Your task to perform on an android device: Open Google Chrome and click the shortcut for Amazon.com Image 0: 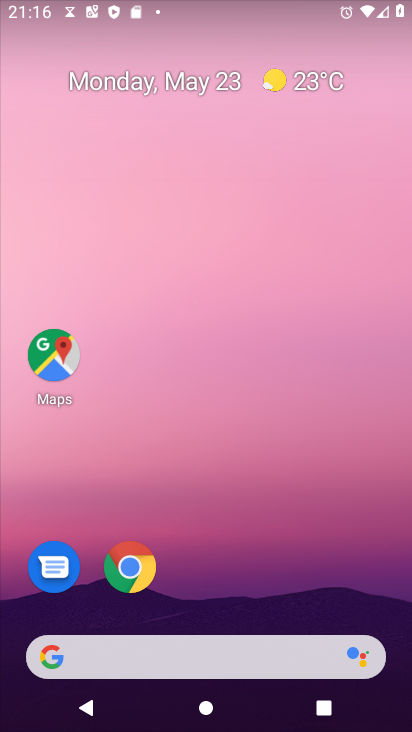
Step 0: drag from (313, 584) to (301, 273)
Your task to perform on an android device: Open Google Chrome and click the shortcut for Amazon.com Image 1: 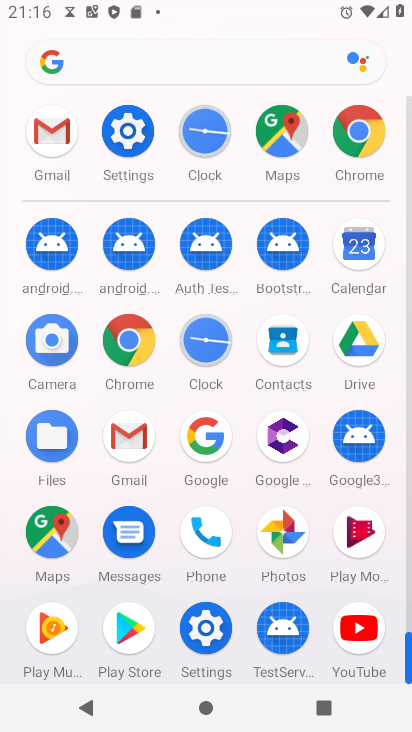
Step 1: click (136, 326)
Your task to perform on an android device: Open Google Chrome and click the shortcut for Amazon.com Image 2: 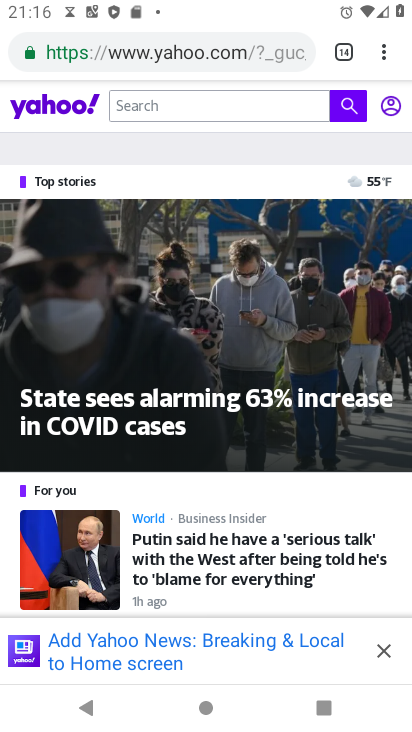
Step 2: click (390, 42)
Your task to perform on an android device: Open Google Chrome and click the shortcut for Amazon.com Image 3: 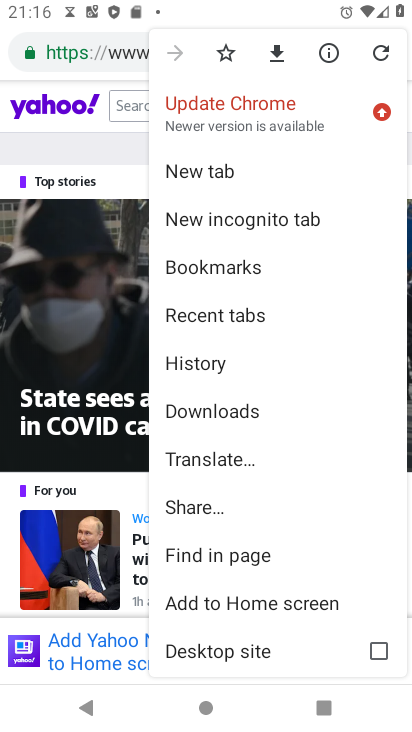
Step 3: click (219, 159)
Your task to perform on an android device: Open Google Chrome and click the shortcut for Amazon.com Image 4: 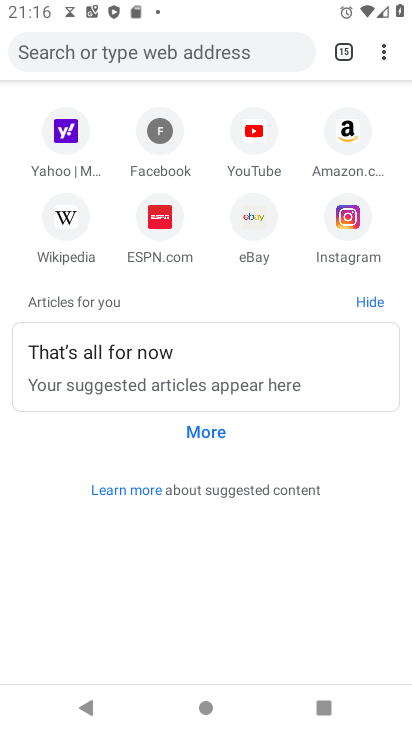
Step 4: click (353, 125)
Your task to perform on an android device: Open Google Chrome and click the shortcut for Amazon.com Image 5: 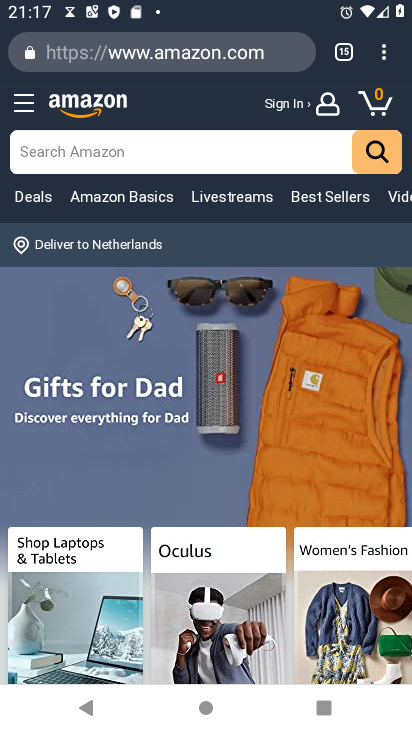
Step 5: task complete